Your task to perform on an android device: turn off picture-in-picture Image 0: 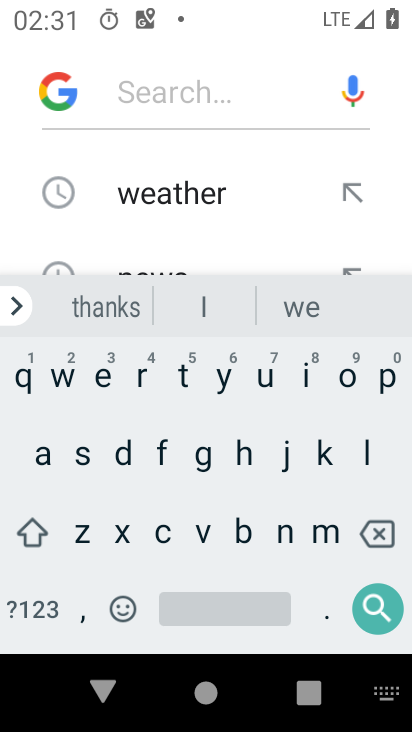
Step 0: press home button
Your task to perform on an android device: turn off picture-in-picture Image 1: 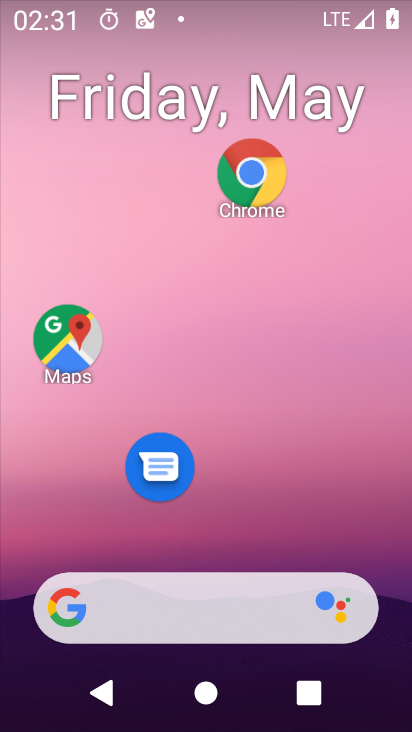
Step 1: drag from (279, 651) to (356, 292)
Your task to perform on an android device: turn off picture-in-picture Image 2: 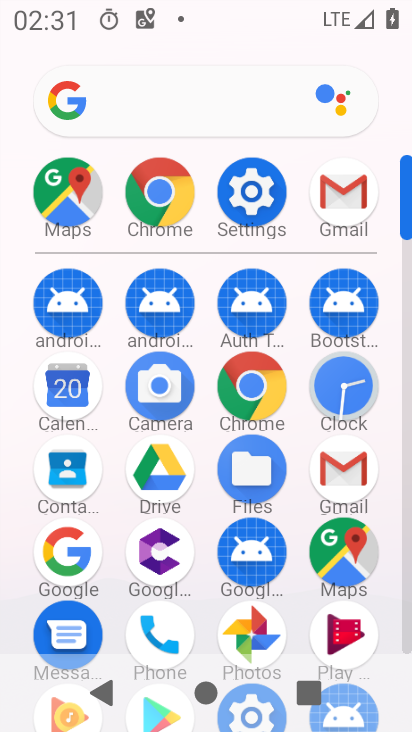
Step 2: click (253, 212)
Your task to perform on an android device: turn off picture-in-picture Image 3: 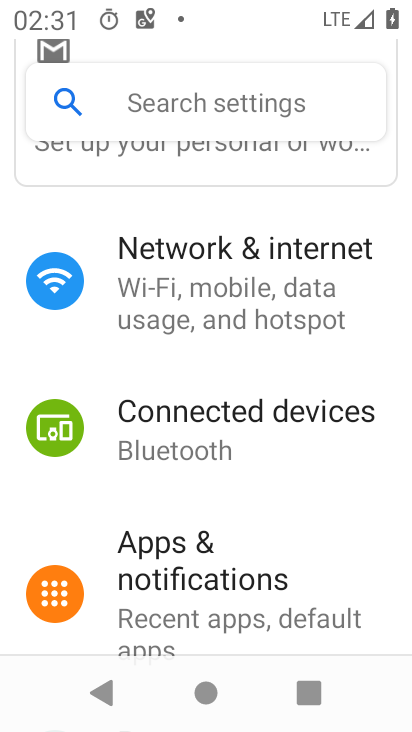
Step 3: click (165, 97)
Your task to perform on an android device: turn off picture-in-picture Image 4: 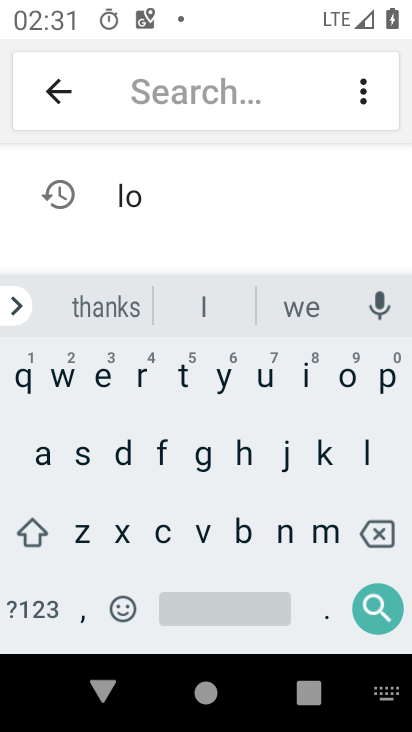
Step 4: click (374, 385)
Your task to perform on an android device: turn off picture-in-picture Image 5: 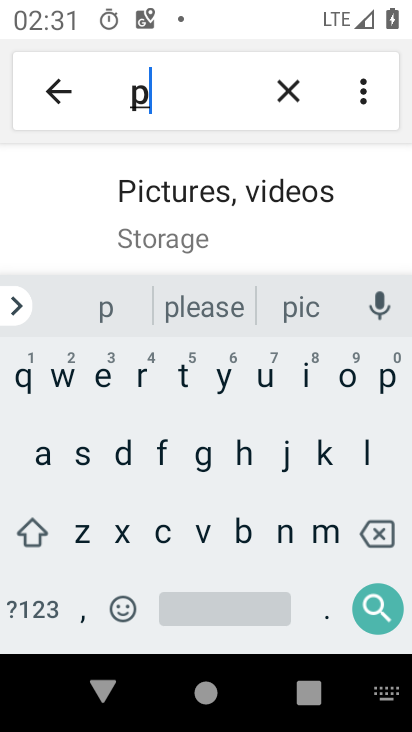
Step 5: click (298, 386)
Your task to perform on an android device: turn off picture-in-picture Image 6: 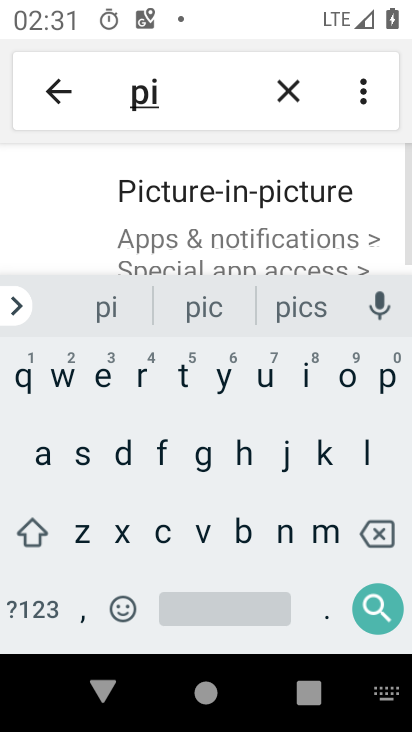
Step 6: click (192, 228)
Your task to perform on an android device: turn off picture-in-picture Image 7: 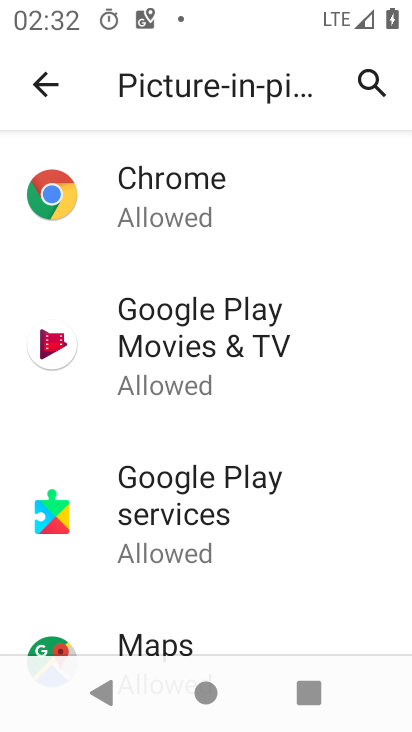
Step 7: task complete